Your task to perform on an android device: Open Google Maps Image 0: 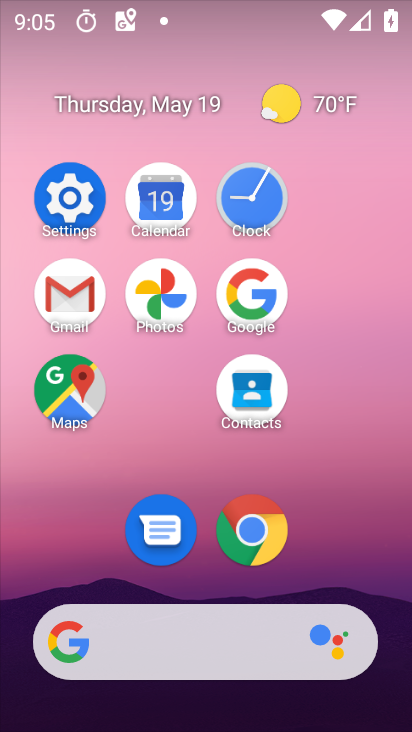
Step 0: click (93, 378)
Your task to perform on an android device: Open Google Maps Image 1: 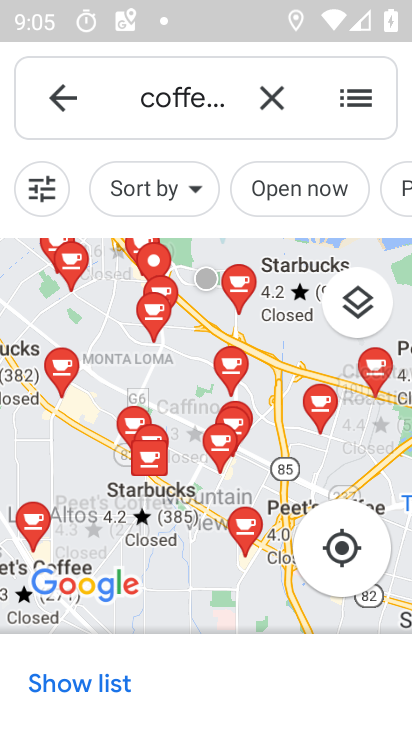
Step 1: task complete